Your task to perform on an android device: read, delete, or share a saved page in the chrome app Image 0: 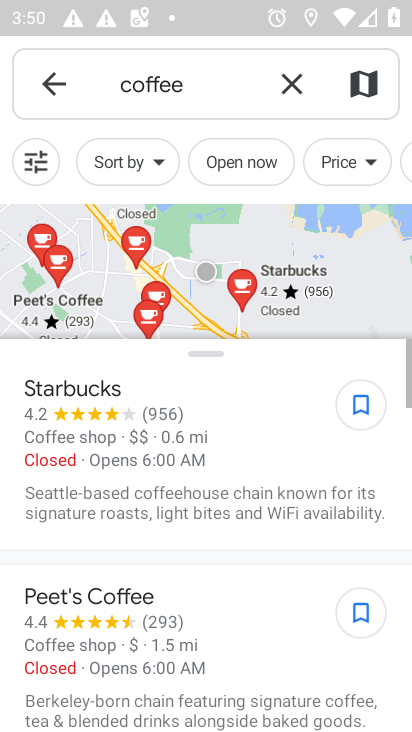
Step 0: click (310, 536)
Your task to perform on an android device: read, delete, or share a saved page in the chrome app Image 1: 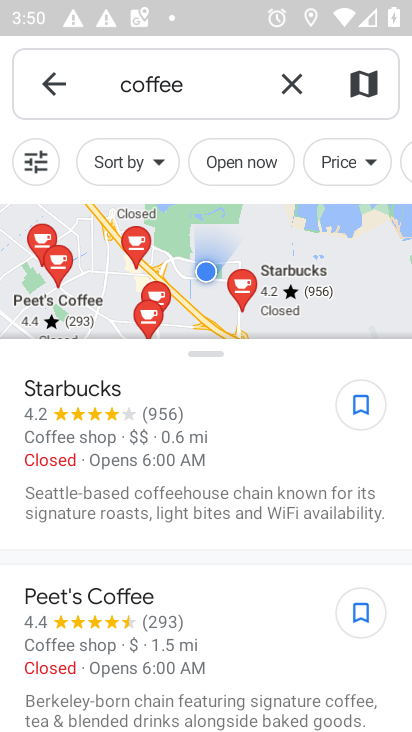
Step 1: press home button
Your task to perform on an android device: read, delete, or share a saved page in the chrome app Image 2: 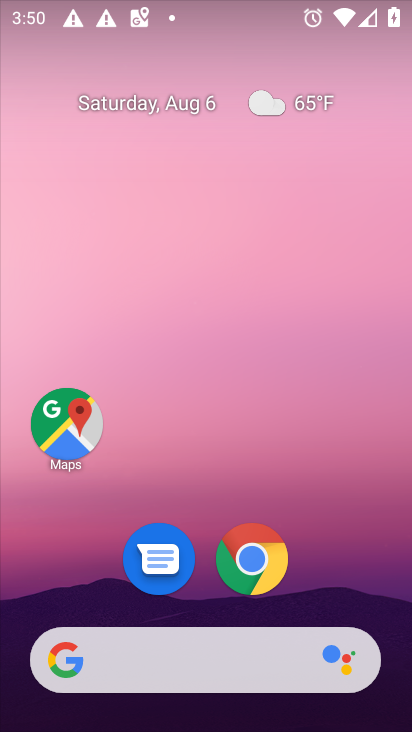
Step 2: click (267, 555)
Your task to perform on an android device: read, delete, or share a saved page in the chrome app Image 3: 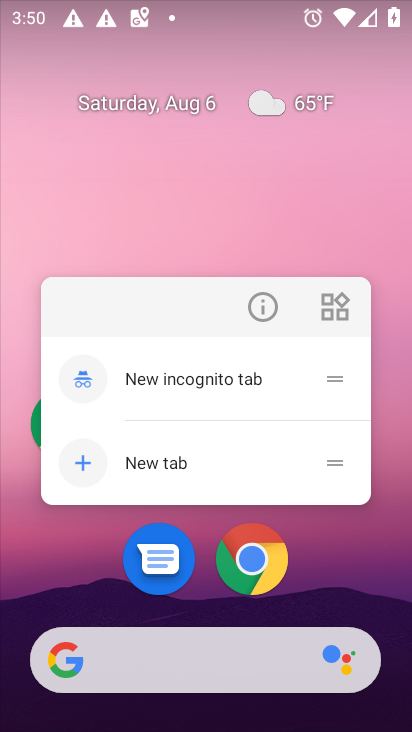
Step 3: click (267, 554)
Your task to perform on an android device: read, delete, or share a saved page in the chrome app Image 4: 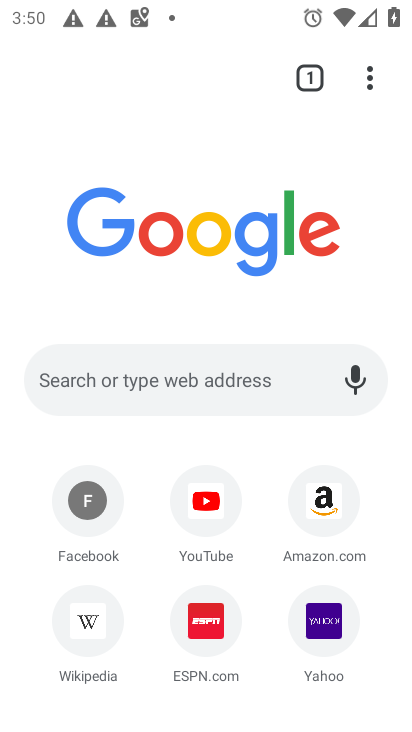
Step 4: click (369, 85)
Your task to perform on an android device: read, delete, or share a saved page in the chrome app Image 5: 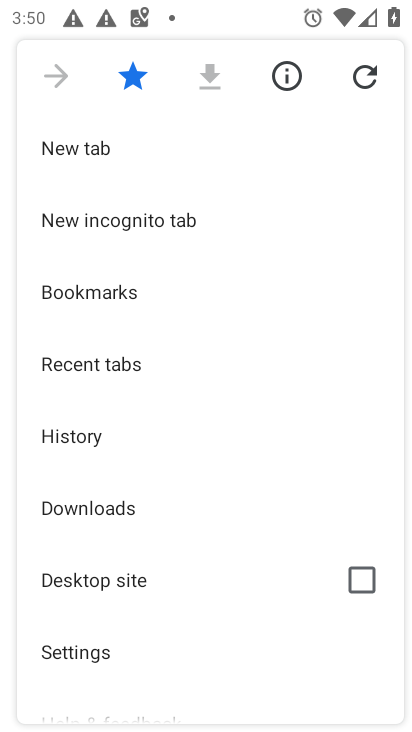
Step 5: click (124, 508)
Your task to perform on an android device: read, delete, or share a saved page in the chrome app Image 6: 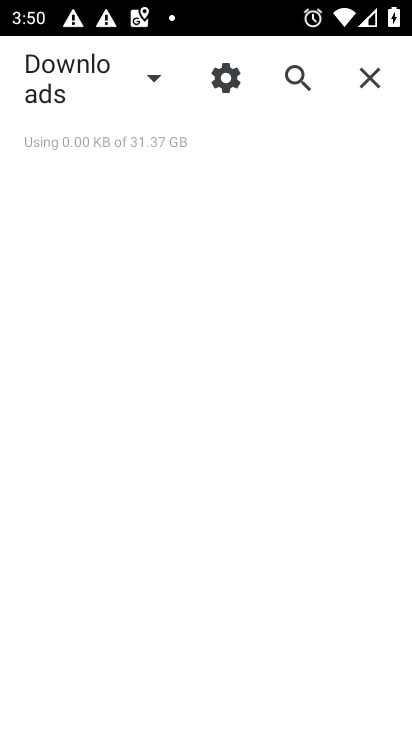
Step 6: task complete